Your task to perform on an android device: Open Google Maps Image 0: 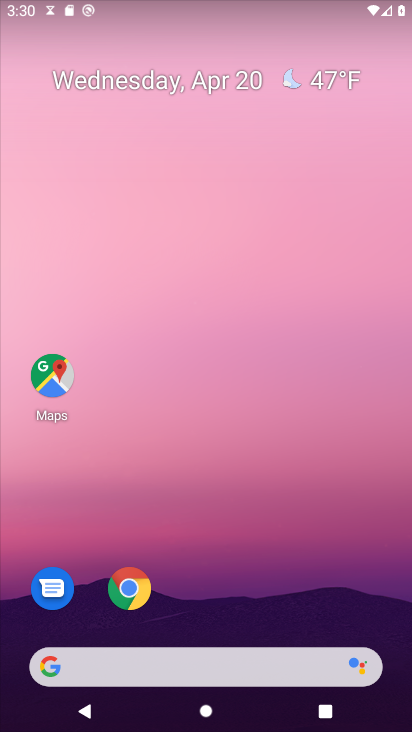
Step 0: drag from (260, 636) to (267, 11)
Your task to perform on an android device: Open Google Maps Image 1: 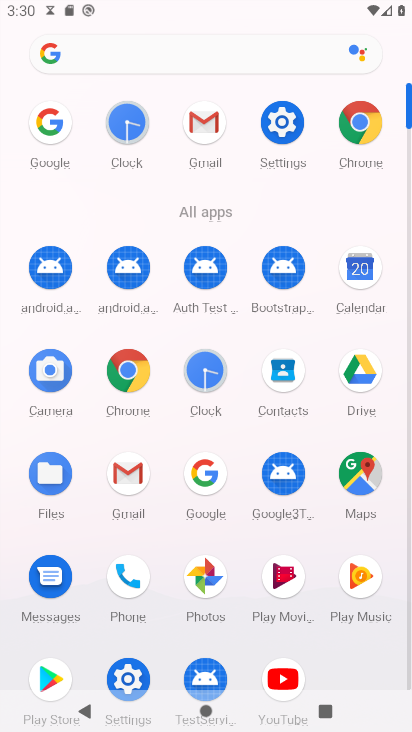
Step 1: click (359, 483)
Your task to perform on an android device: Open Google Maps Image 2: 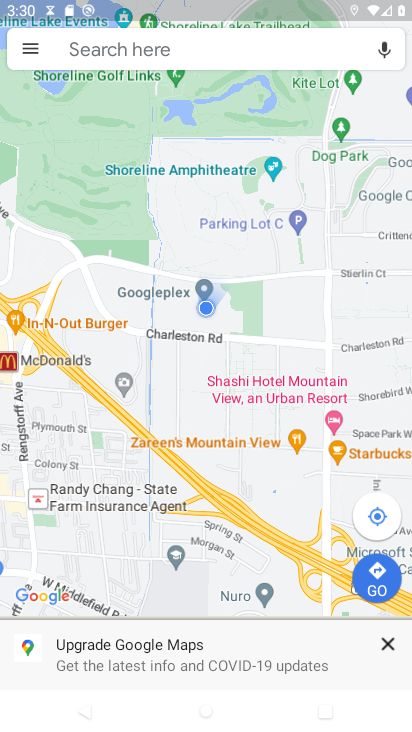
Step 2: task complete